Your task to perform on an android device: turn on location history Image 0: 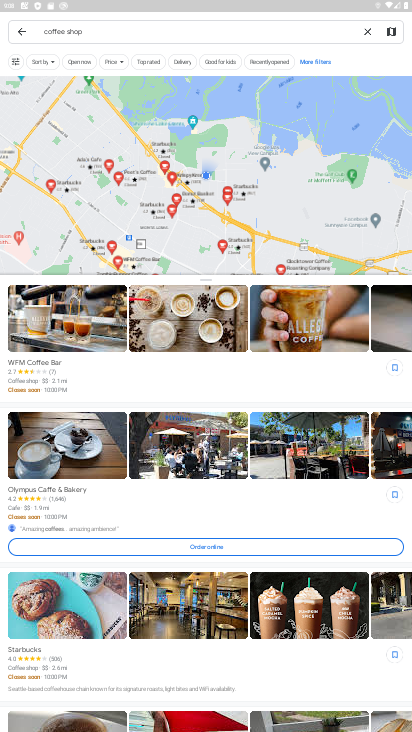
Step 0: drag from (238, 395) to (252, 563)
Your task to perform on an android device: turn on location history Image 1: 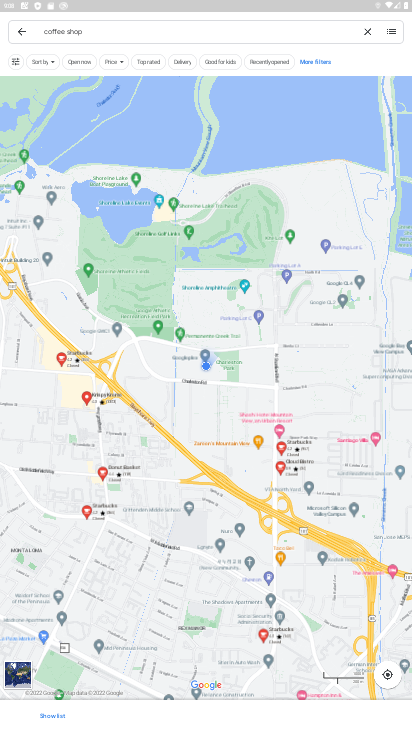
Step 1: drag from (220, 7) to (252, 636)
Your task to perform on an android device: turn on location history Image 2: 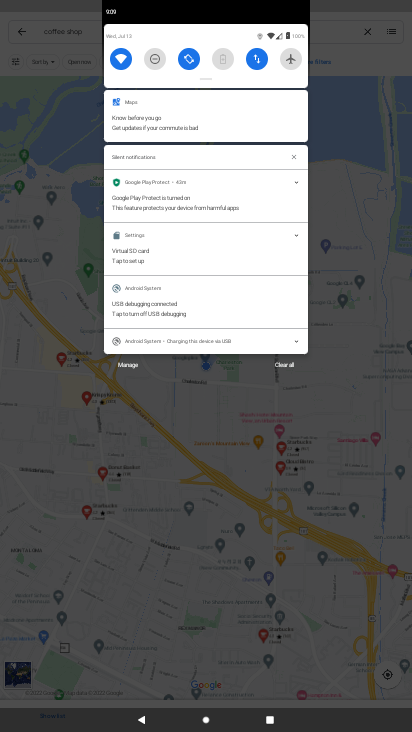
Step 2: drag from (194, 37) to (243, 546)
Your task to perform on an android device: turn on location history Image 3: 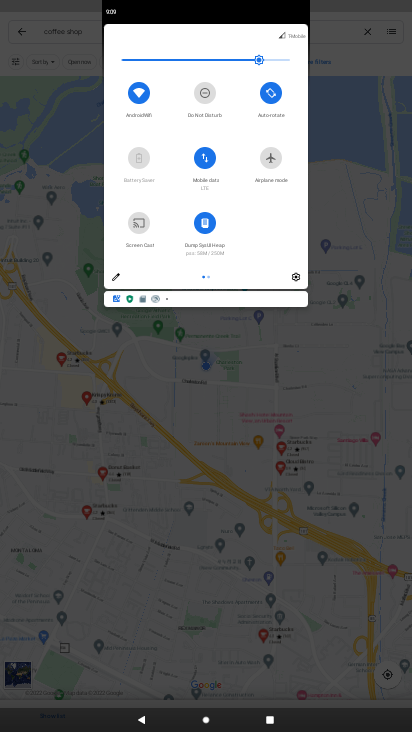
Step 3: click (301, 276)
Your task to perform on an android device: turn on location history Image 4: 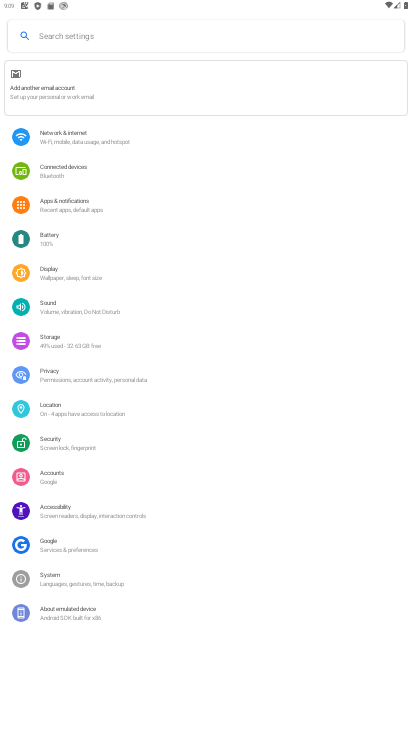
Step 4: click (79, 415)
Your task to perform on an android device: turn on location history Image 5: 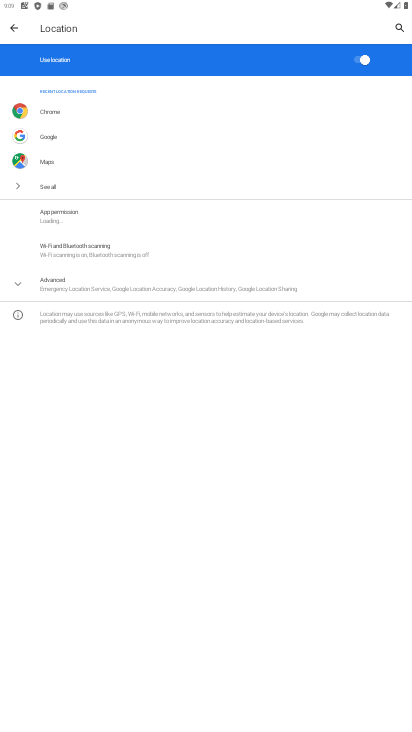
Step 5: task complete